Your task to perform on an android device: turn on notifications settings in the gmail app Image 0: 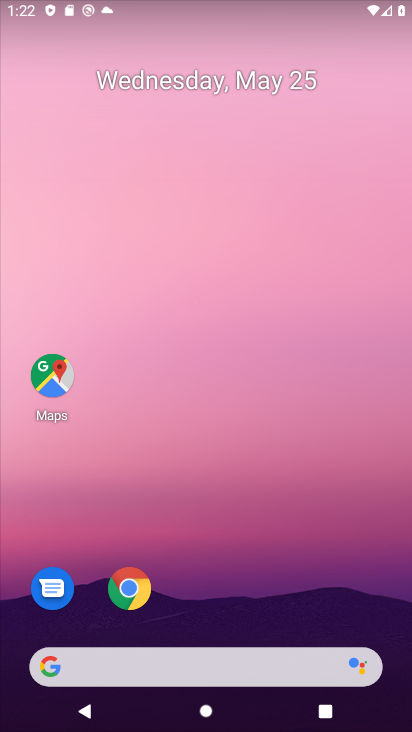
Step 0: drag from (288, 524) to (344, 43)
Your task to perform on an android device: turn on notifications settings in the gmail app Image 1: 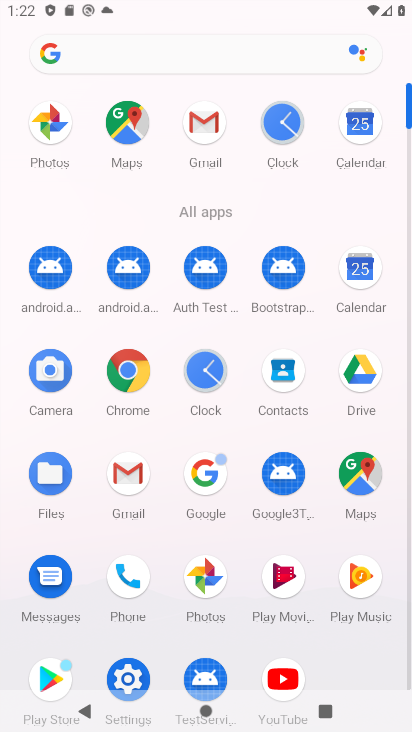
Step 1: click (196, 119)
Your task to perform on an android device: turn on notifications settings in the gmail app Image 2: 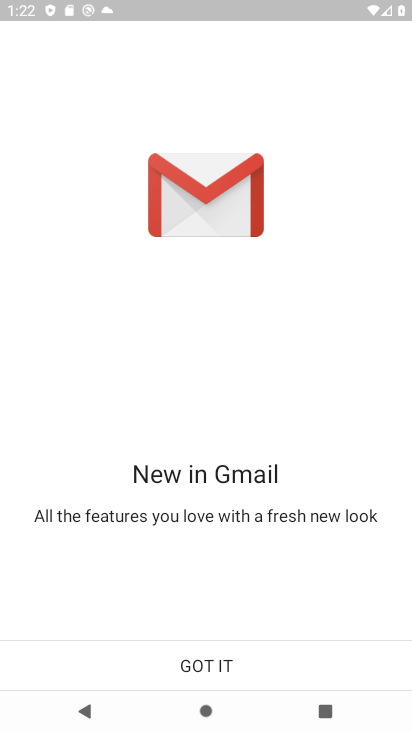
Step 2: click (209, 658)
Your task to perform on an android device: turn on notifications settings in the gmail app Image 3: 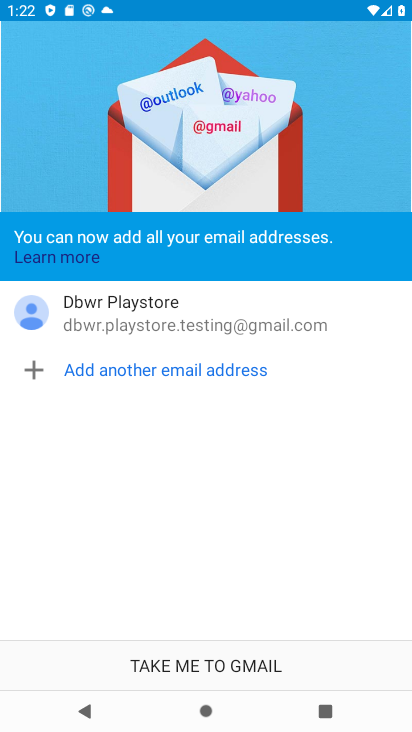
Step 3: click (270, 651)
Your task to perform on an android device: turn on notifications settings in the gmail app Image 4: 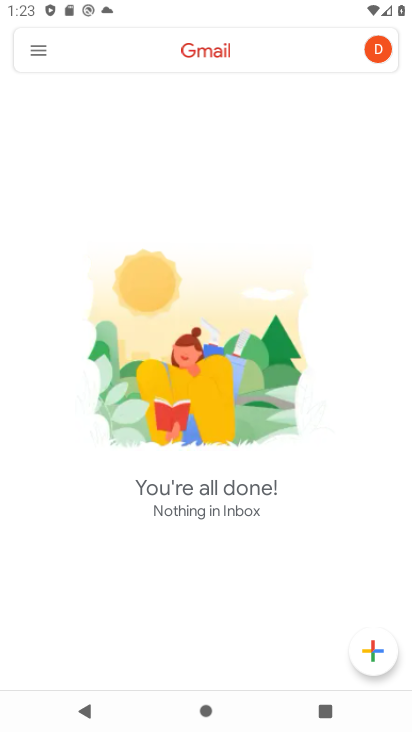
Step 4: click (39, 49)
Your task to perform on an android device: turn on notifications settings in the gmail app Image 5: 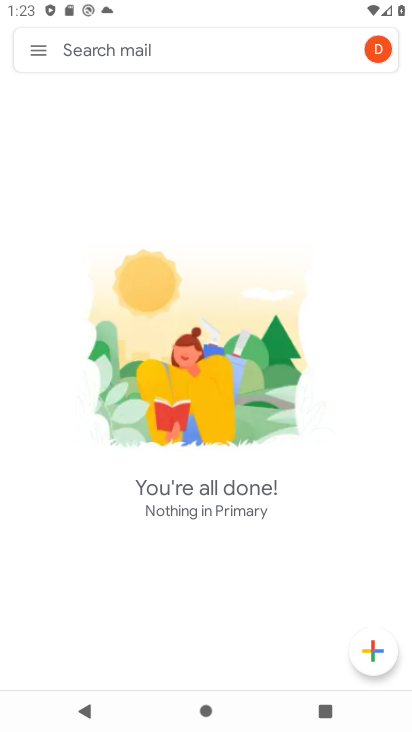
Step 5: click (31, 47)
Your task to perform on an android device: turn on notifications settings in the gmail app Image 6: 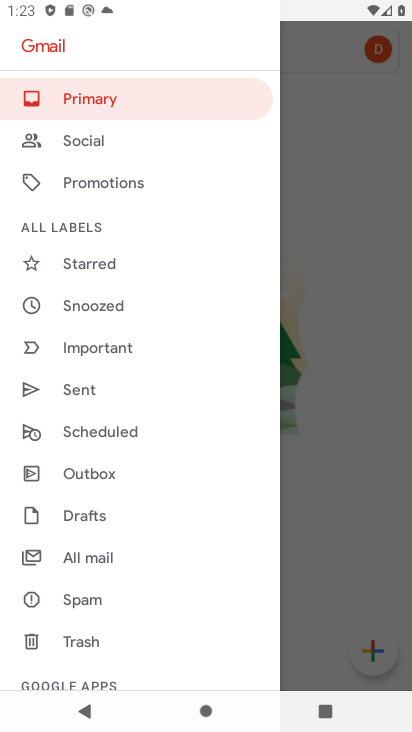
Step 6: drag from (144, 639) to (193, 230)
Your task to perform on an android device: turn on notifications settings in the gmail app Image 7: 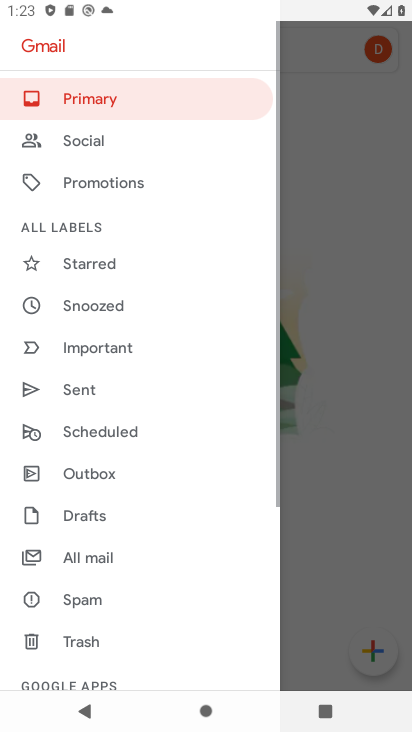
Step 7: drag from (55, 504) to (206, 139)
Your task to perform on an android device: turn on notifications settings in the gmail app Image 8: 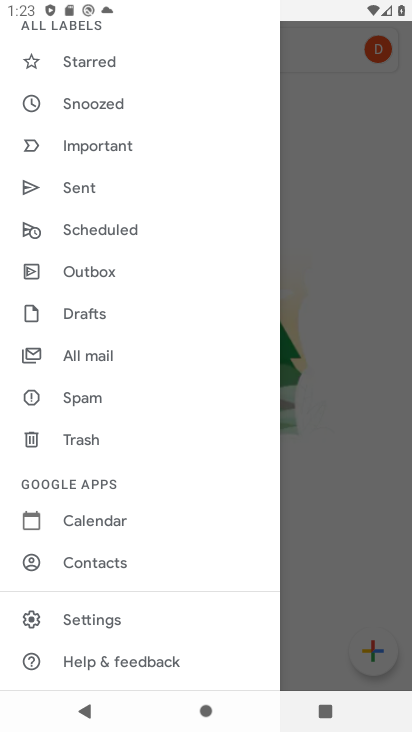
Step 8: click (76, 620)
Your task to perform on an android device: turn on notifications settings in the gmail app Image 9: 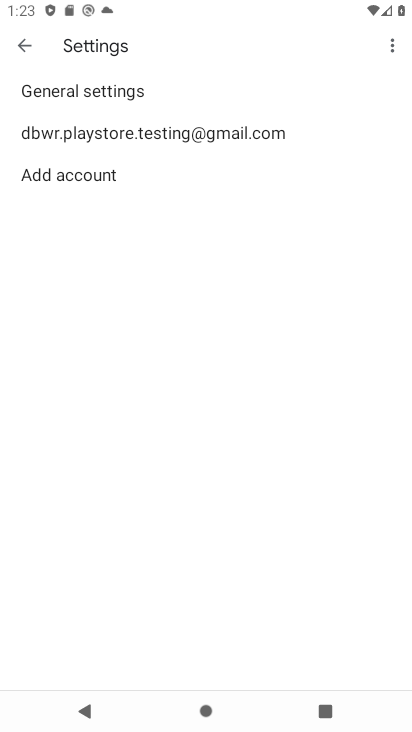
Step 9: click (203, 124)
Your task to perform on an android device: turn on notifications settings in the gmail app Image 10: 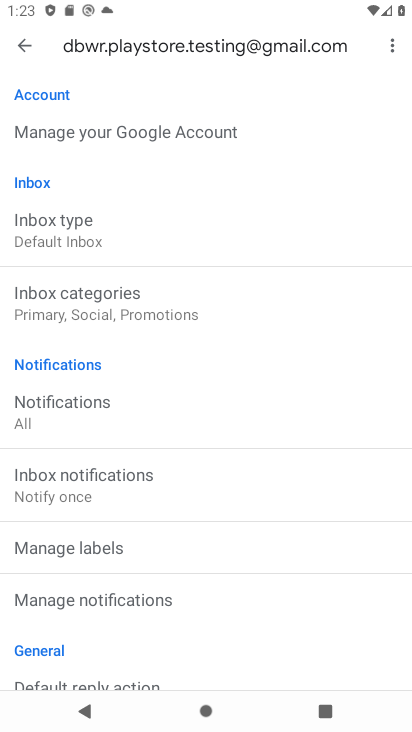
Step 10: click (104, 611)
Your task to perform on an android device: turn on notifications settings in the gmail app Image 11: 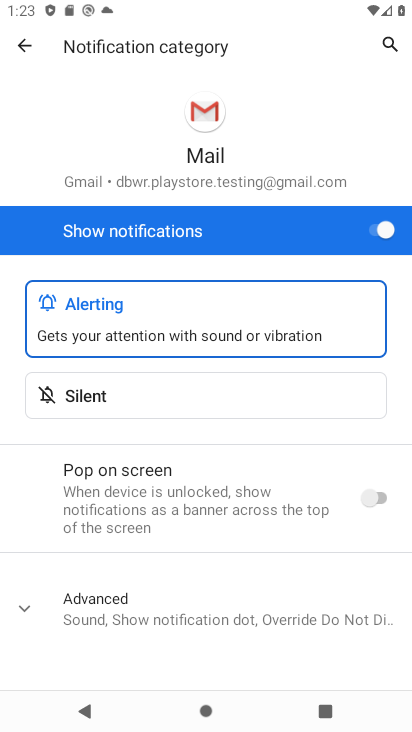
Step 11: task complete